Your task to perform on an android device: all mails in gmail Image 0: 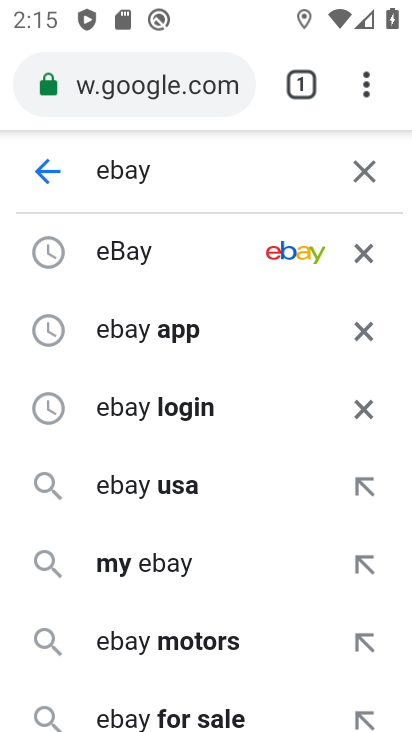
Step 0: press home button
Your task to perform on an android device: all mails in gmail Image 1: 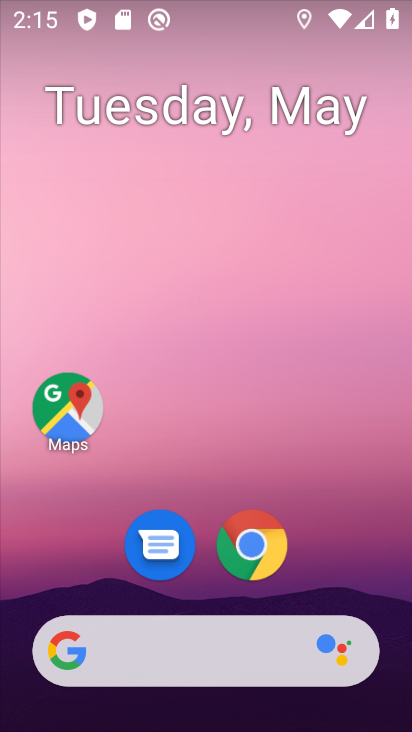
Step 1: drag from (194, 478) to (244, 26)
Your task to perform on an android device: all mails in gmail Image 2: 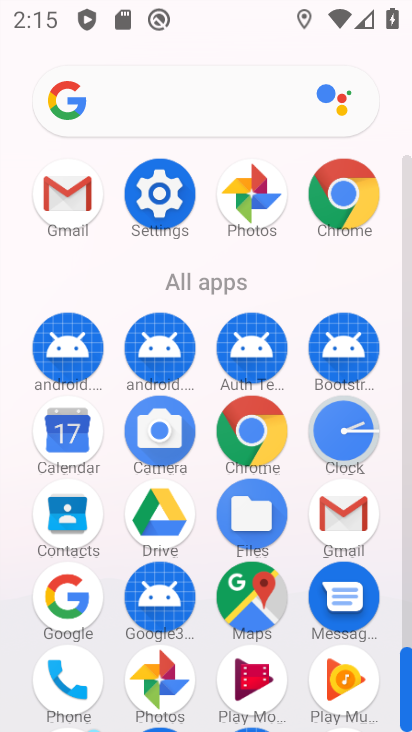
Step 2: click (355, 517)
Your task to perform on an android device: all mails in gmail Image 3: 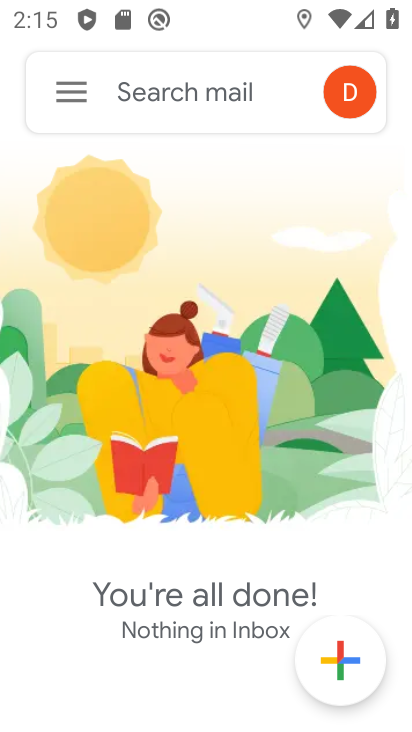
Step 3: task complete